Your task to perform on an android device: Open Youtube and go to "Your channel" Image 0: 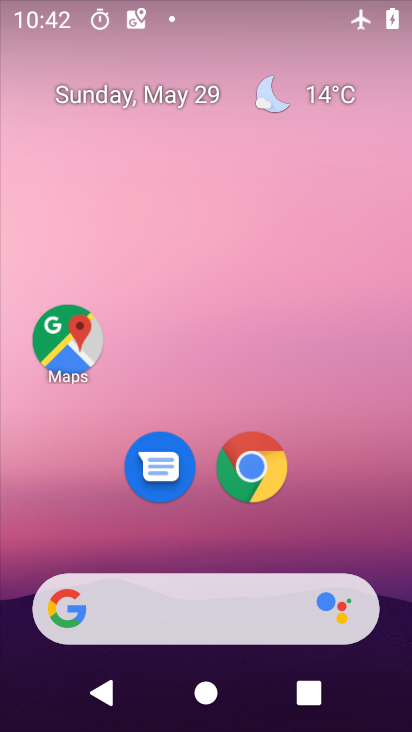
Step 0: drag from (172, 447) to (146, 200)
Your task to perform on an android device: Open Youtube and go to "Your channel" Image 1: 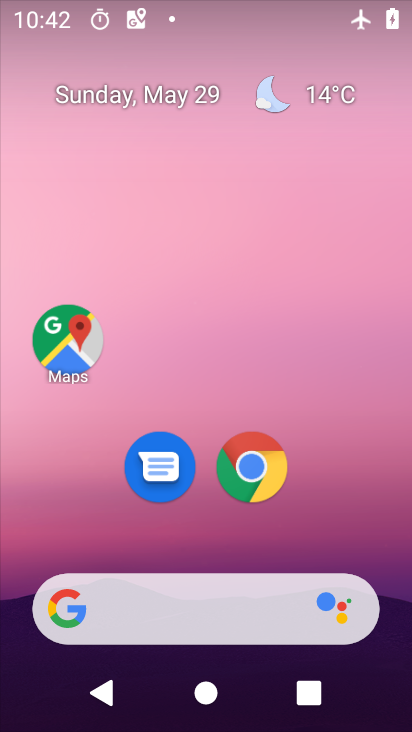
Step 1: drag from (200, 546) to (207, 183)
Your task to perform on an android device: Open Youtube and go to "Your channel" Image 2: 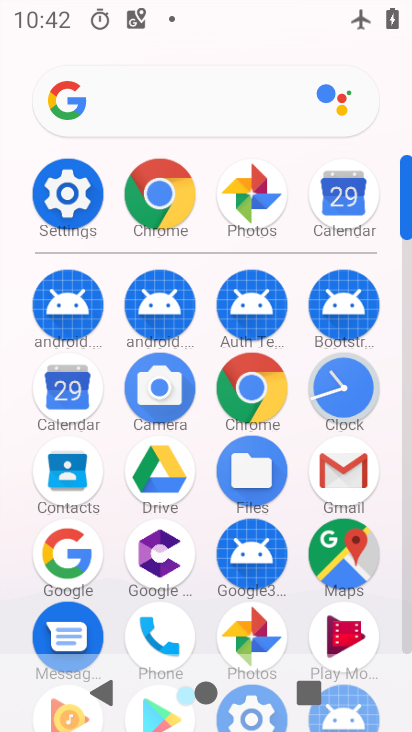
Step 2: drag from (207, 560) to (198, 207)
Your task to perform on an android device: Open Youtube and go to "Your channel" Image 3: 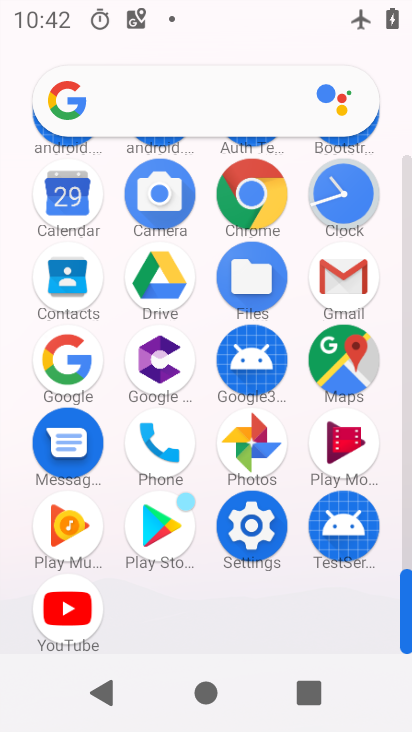
Step 3: click (77, 620)
Your task to perform on an android device: Open Youtube and go to "Your channel" Image 4: 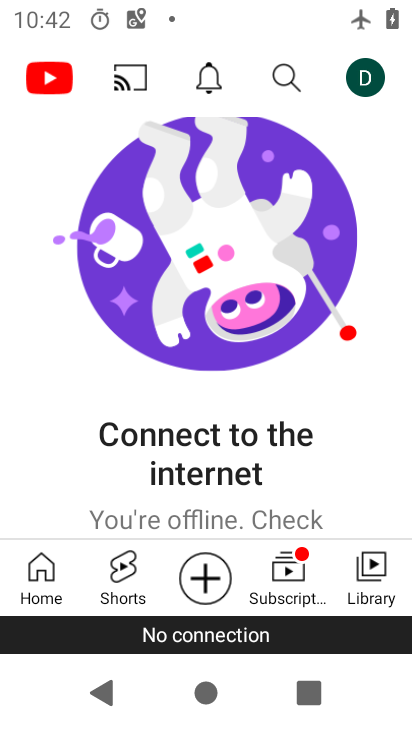
Step 4: click (364, 57)
Your task to perform on an android device: Open Youtube and go to "Your channel" Image 5: 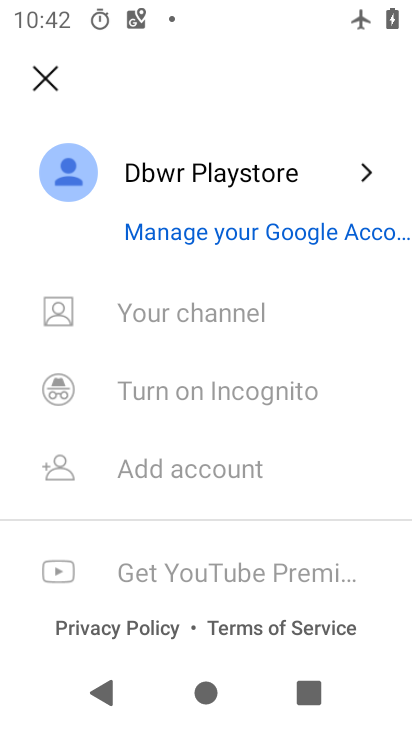
Step 5: click (174, 325)
Your task to perform on an android device: Open Youtube and go to "Your channel" Image 6: 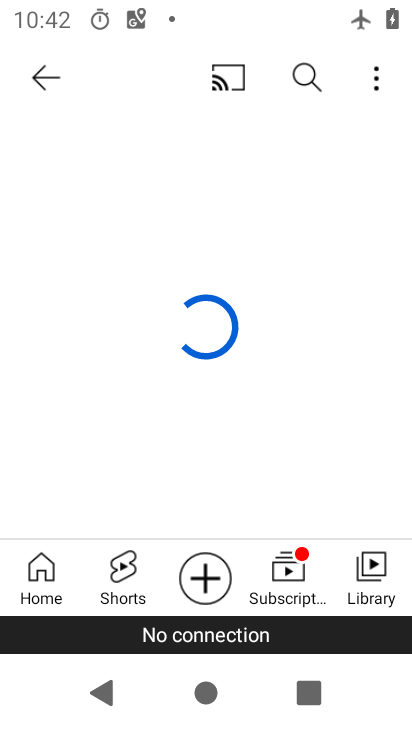
Step 6: task complete